Your task to perform on an android device: What's the weather? Image 0: 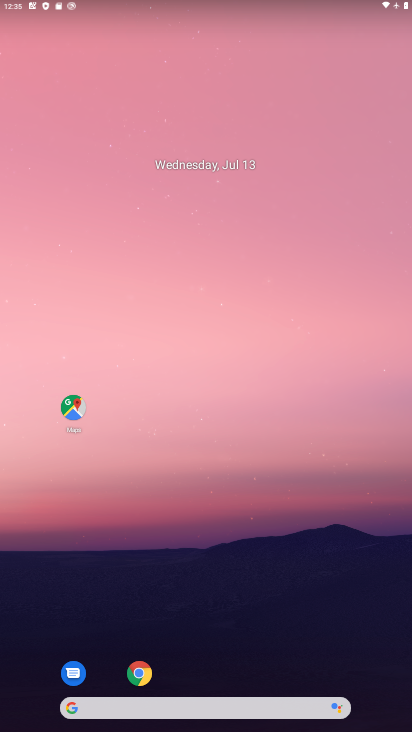
Step 0: click (257, 642)
Your task to perform on an android device: What's the weather? Image 1: 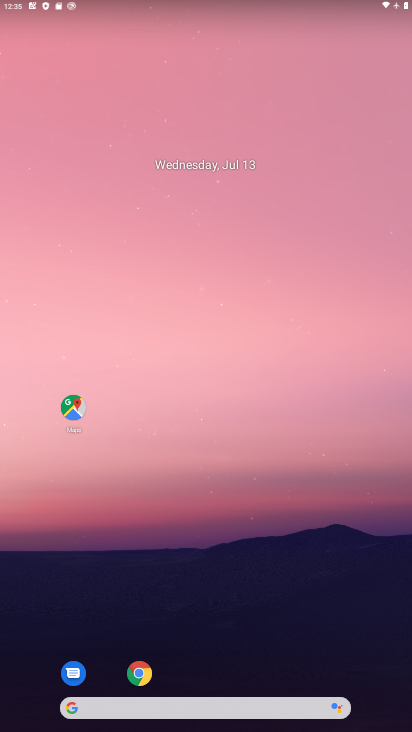
Step 1: click (230, 705)
Your task to perform on an android device: What's the weather? Image 2: 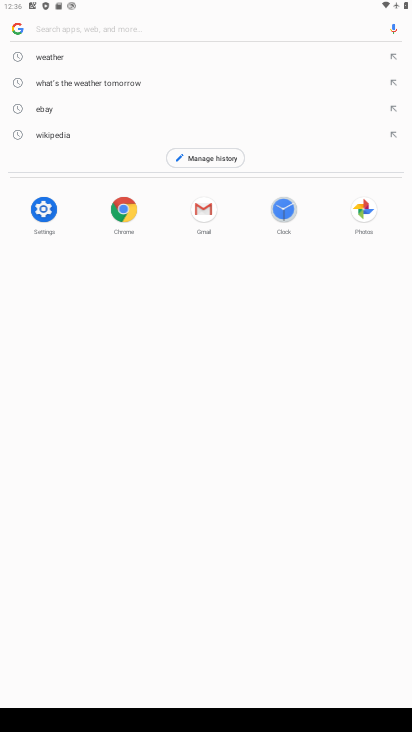
Step 2: type "whethaer"
Your task to perform on an android device: What's the weather? Image 3: 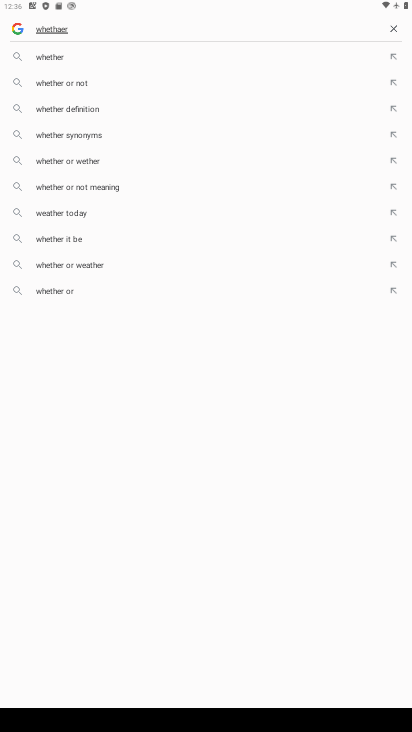
Step 3: click (385, 28)
Your task to perform on an android device: What's the weather? Image 4: 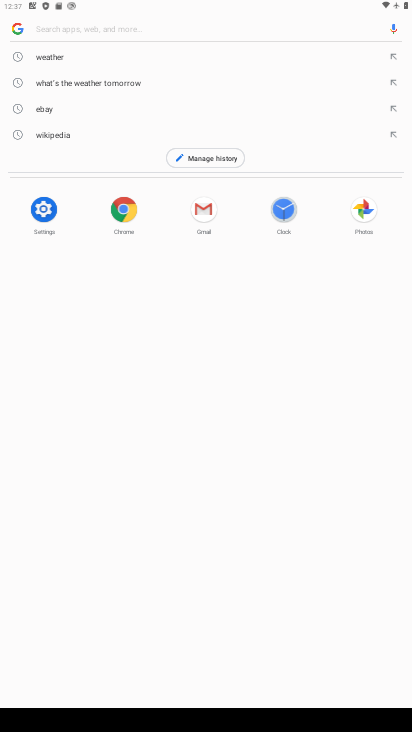
Step 4: type "waether"
Your task to perform on an android device: What's the weather? Image 5: 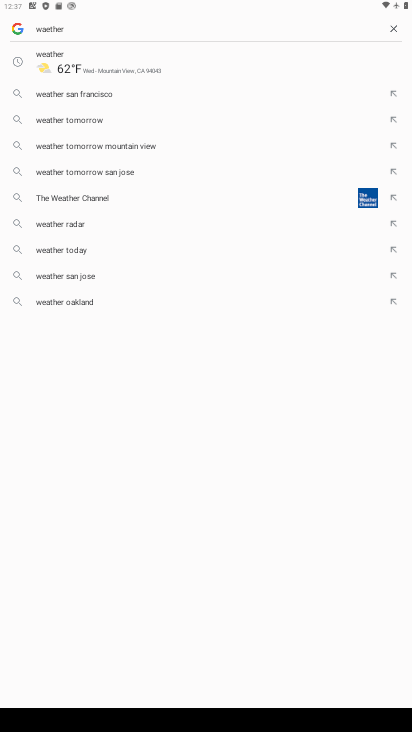
Step 5: click (61, 66)
Your task to perform on an android device: What's the weather? Image 6: 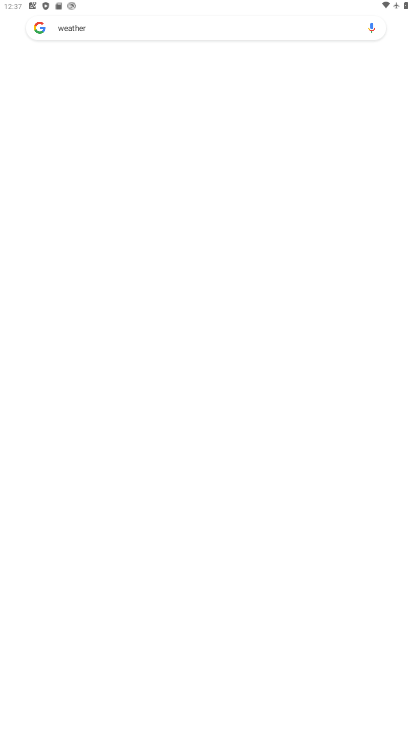
Step 6: task complete